Your task to perform on an android device: What's on my calendar today? Image 0: 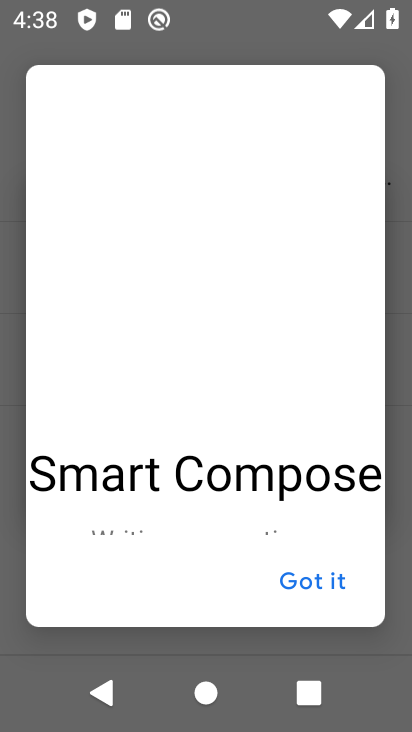
Step 0: press home button
Your task to perform on an android device: What's on my calendar today? Image 1: 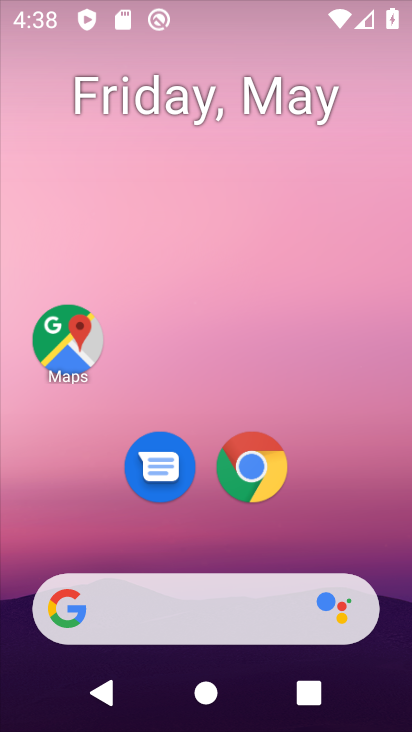
Step 1: drag from (330, 559) to (322, 142)
Your task to perform on an android device: What's on my calendar today? Image 2: 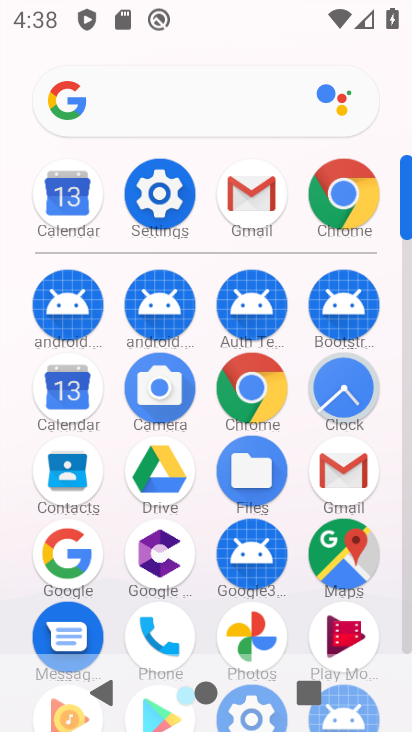
Step 2: click (62, 212)
Your task to perform on an android device: What's on my calendar today? Image 3: 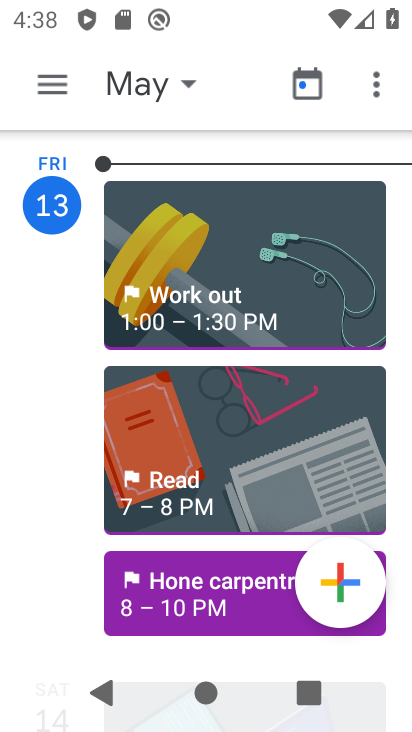
Step 3: task complete